Your task to perform on an android device: delete browsing data in the chrome app Image 0: 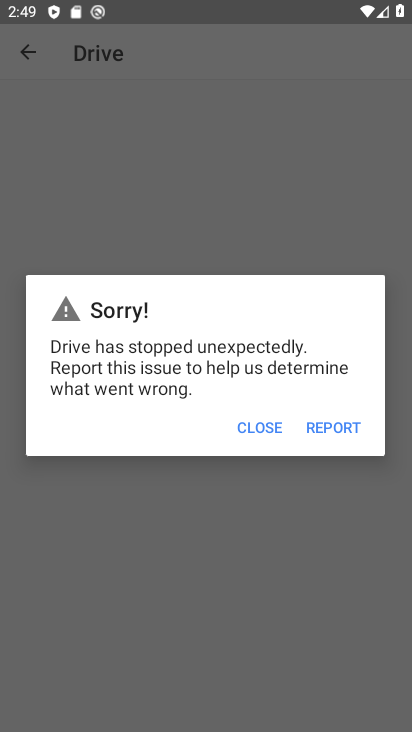
Step 0: press home button
Your task to perform on an android device: delete browsing data in the chrome app Image 1: 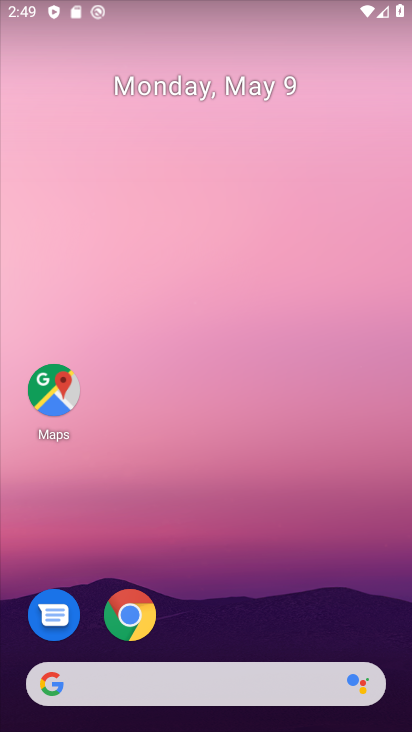
Step 1: drag from (264, 542) to (268, 265)
Your task to perform on an android device: delete browsing data in the chrome app Image 2: 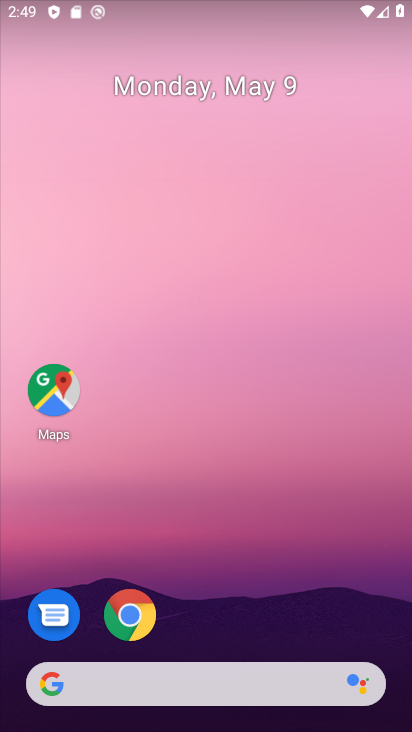
Step 2: drag from (258, 654) to (323, 344)
Your task to perform on an android device: delete browsing data in the chrome app Image 3: 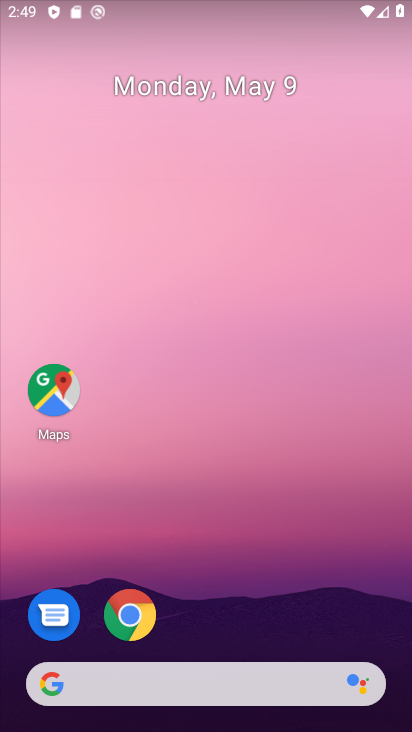
Step 3: drag from (248, 576) to (296, 158)
Your task to perform on an android device: delete browsing data in the chrome app Image 4: 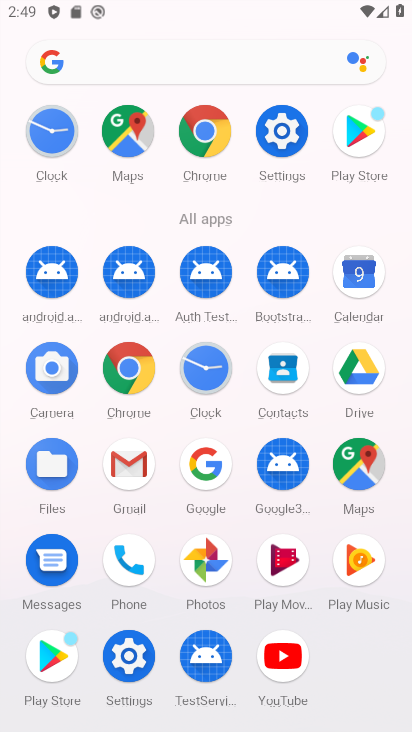
Step 4: click (132, 363)
Your task to perform on an android device: delete browsing data in the chrome app Image 5: 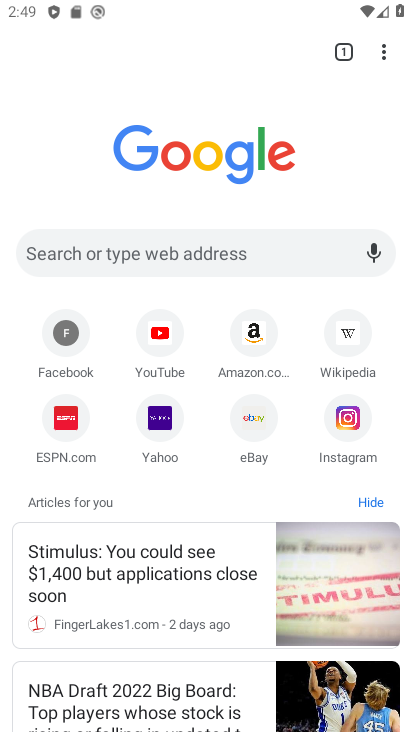
Step 5: click (375, 52)
Your task to perform on an android device: delete browsing data in the chrome app Image 6: 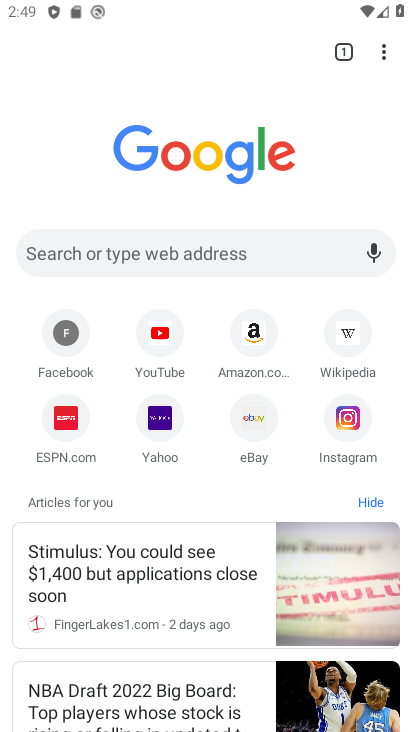
Step 6: click (367, 45)
Your task to perform on an android device: delete browsing data in the chrome app Image 7: 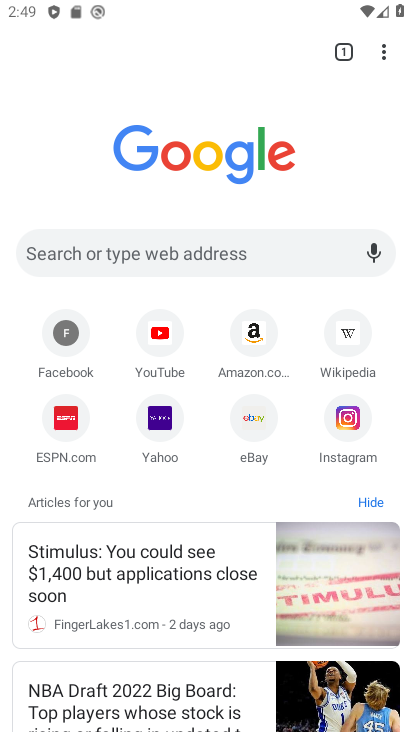
Step 7: click (373, 51)
Your task to perform on an android device: delete browsing data in the chrome app Image 8: 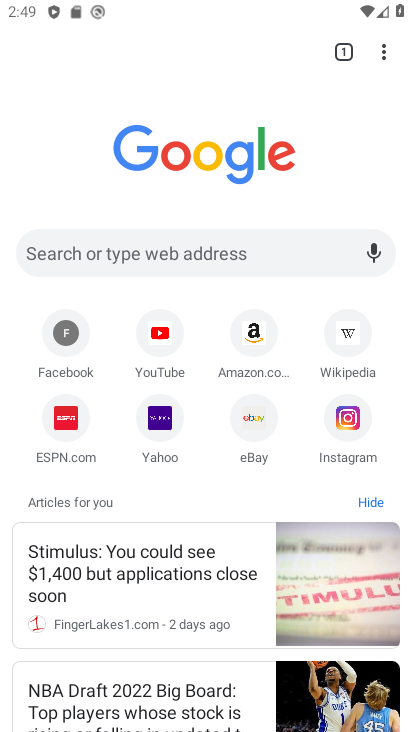
Step 8: click (377, 46)
Your task to perform on an android device: delete browsing data in the chrome app Image 9: 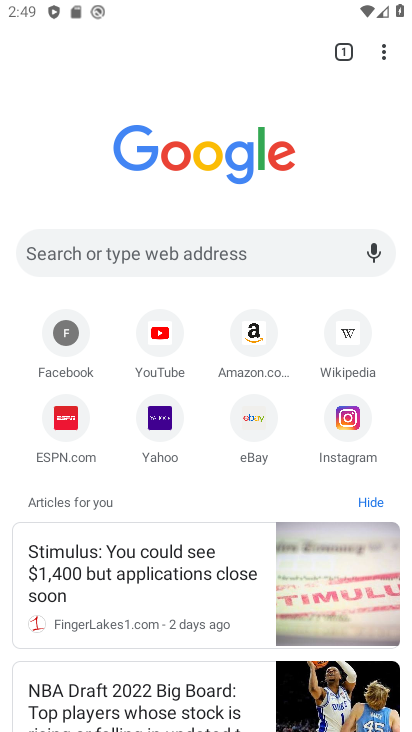
Step 9: click (365, 56)
Your task to perform on an android device: delete browsing data in the chrome app Image 10: 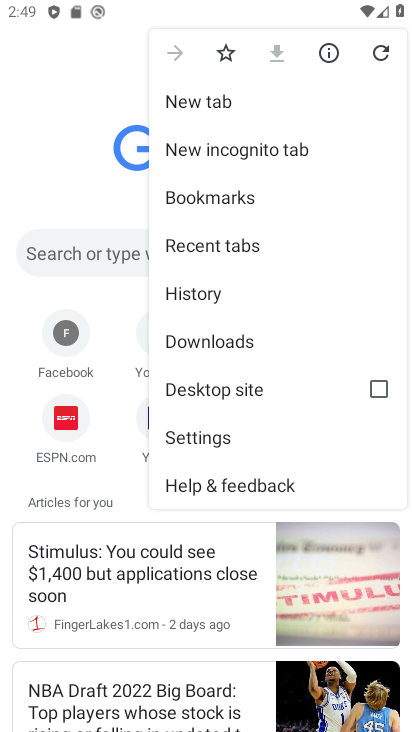
Step 10: click (228, 292)
Your task to perform on an android device: delete browsing data in the chrome app Image 11: 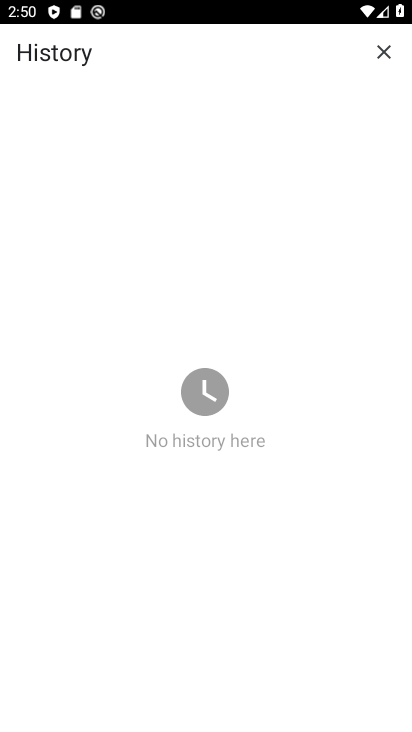
Step 11: task complete